Your task to perform on an android device: toggle notifications settings in the gmail app Image 0: 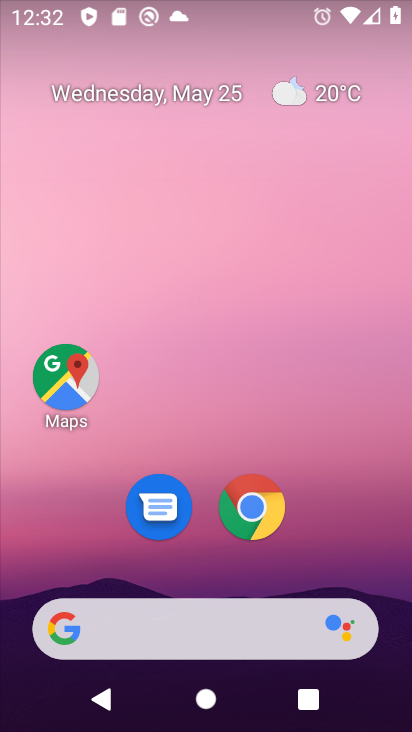
Step 0: drag from (389, 543) to (301, 80)
Your task to perform on an android device: toggle notifications settings in the gmail app Image 1: 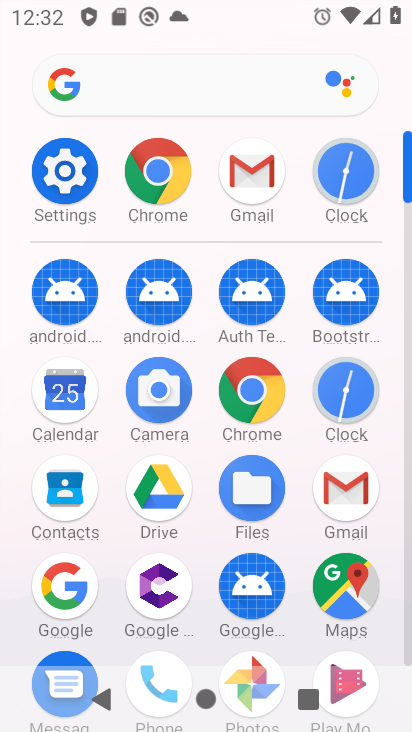
Step 1: click (330, 499)
Your task to perform on an android device: toggle notifications settings in the gmail app Image 2: 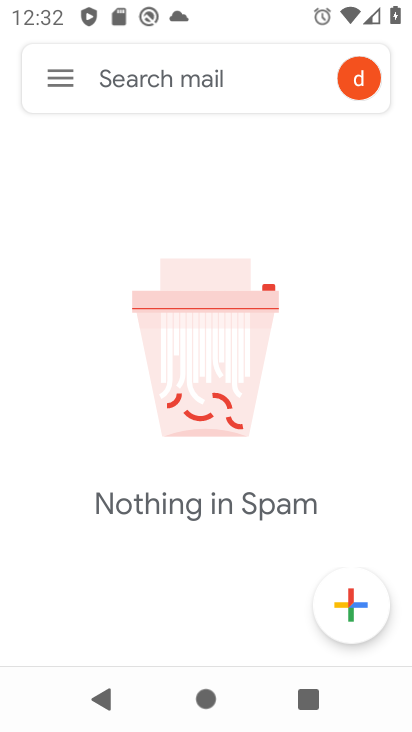
Step 2: click (53, 83)
Your task to perform on an android device: toggle notifications settings in the gmail app Image 3: 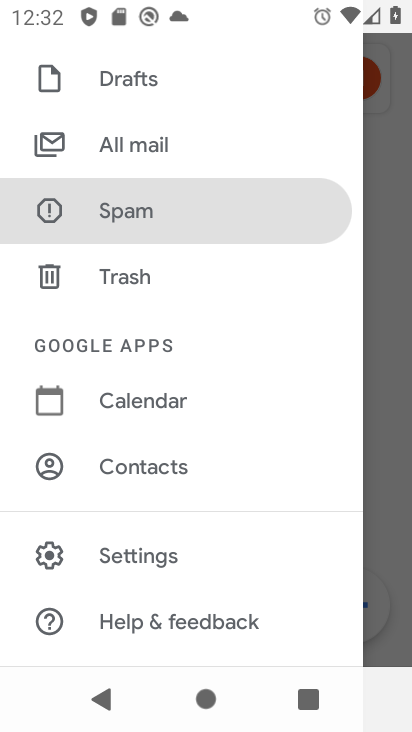
Step 3: click (139, 551)
Your task to perform on an android device: toggle notifications settings in the gmail app Image 4: 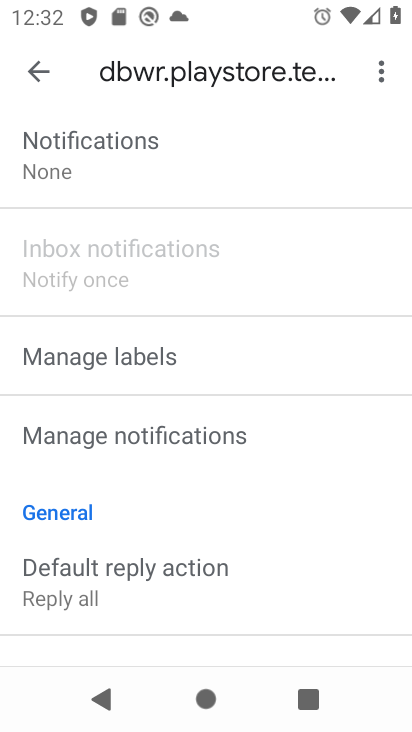
Step 4: drag from (103, 149) to (105, 490)
Your task to perform on an android device: toggle notifications settings in the gmail app Image 5: 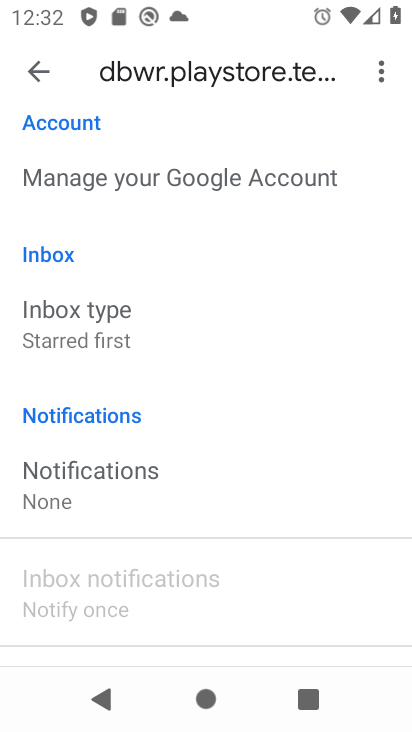
Step 5: click (94, 466)
Your task to perform on an android device: toggle notifications settings in the gmail app Image 6: 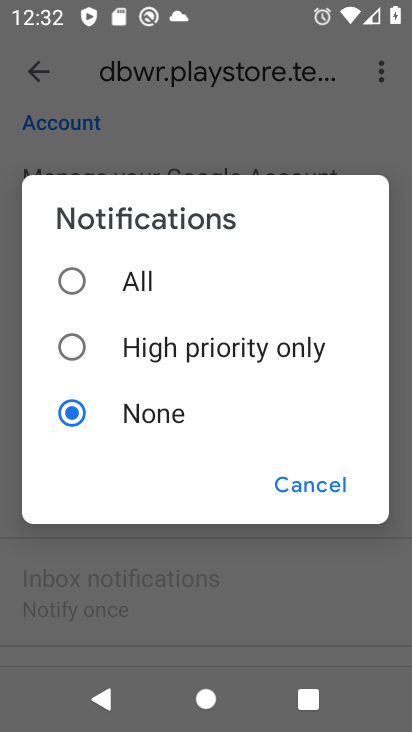
Step 6: task complete